Your task to perform on an android device: clear history in the chrome app Image 0: 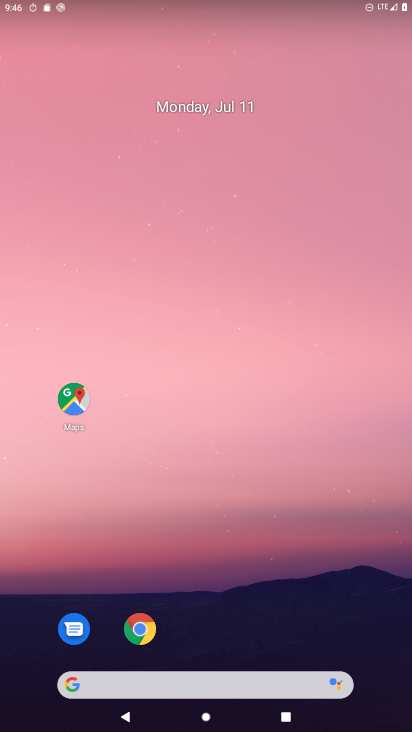
Step 0: click (138, 613)
Your task to perform on an android device: clear history in the chrome app Image 1: 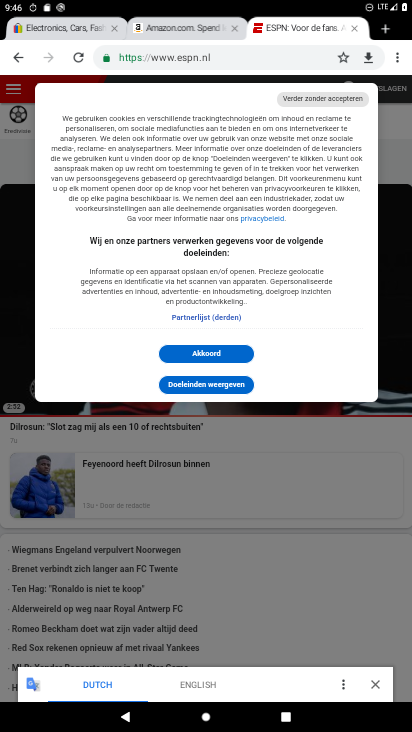
Step 1: click (397, 57)
Your task to perform on an android device: clear history in the chrome app Image 2: 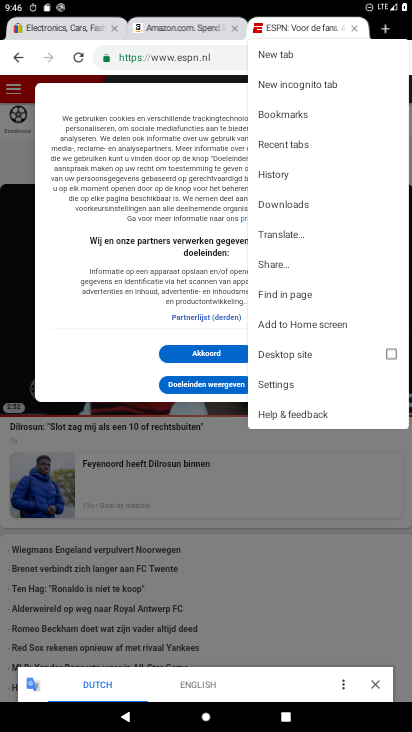
Step 2: click (295, 167)
Your task to perform on an android device: clear history in the chrome app Image 3: 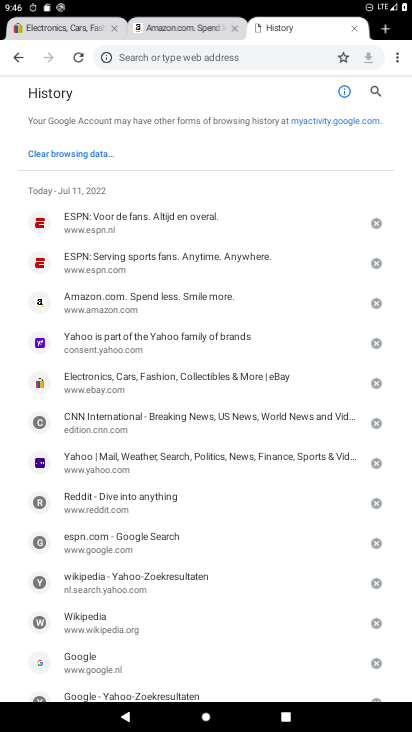
Step 3: click (91, 136)
Your task to perform on an android device: clear history in the chrome app Image 4: 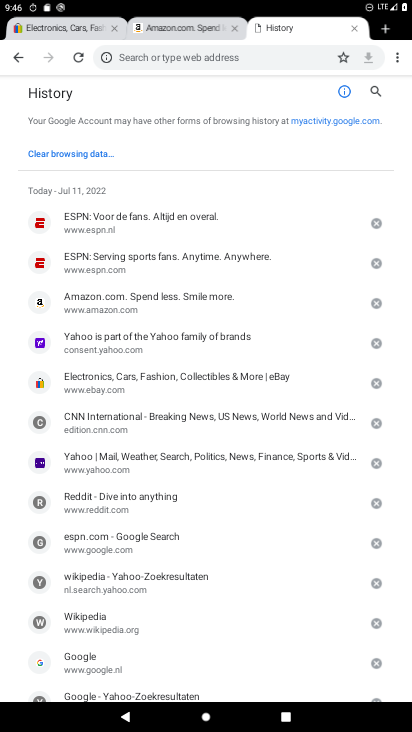
Step 4: click (85, 153)
Your task to perform on an android device: clear history in the chrome app Image 5: 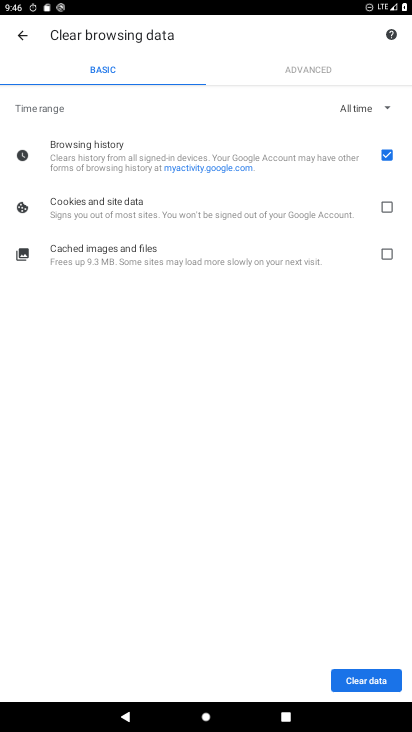
Step 5: click (381, 680)
Your task to perform on an android device: clear history in the chrome app Image 6: 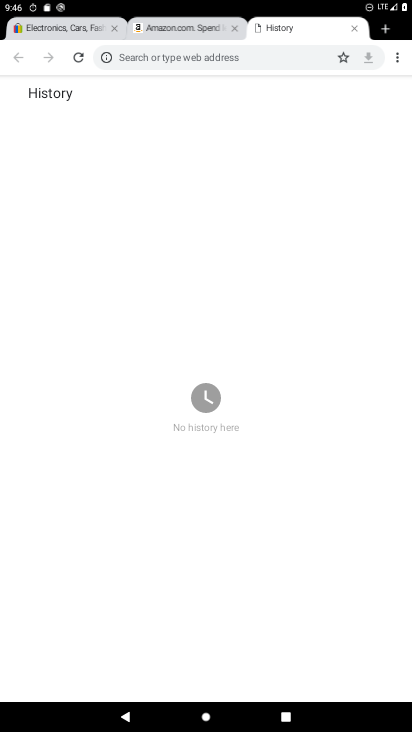
Step 6: task complete